Your task to perform on an android device: clear history in the chrome app Image 0: 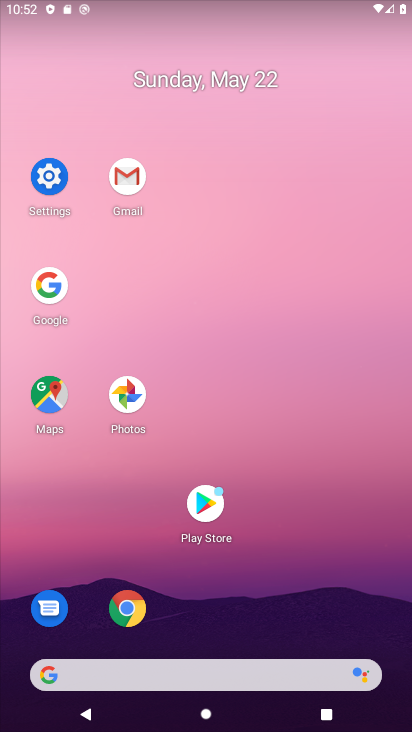
Step 0: click (130, 618)
Your task to perform on an android device: clear history in the chrome app Image 1: 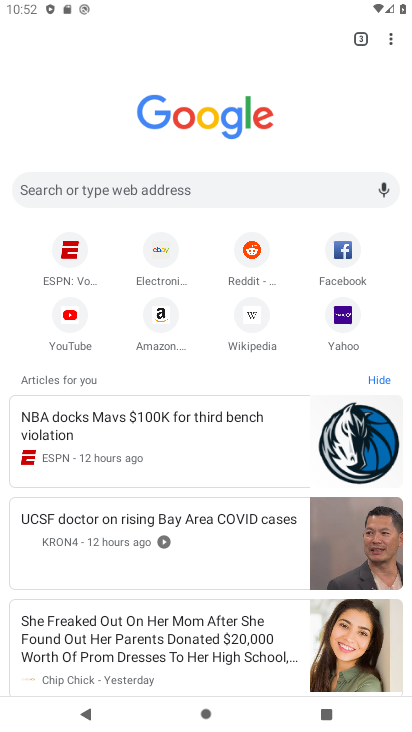
Step 1: click (392, 50)
Your task to perform on an android device: clear history in the chrome app Image 2: 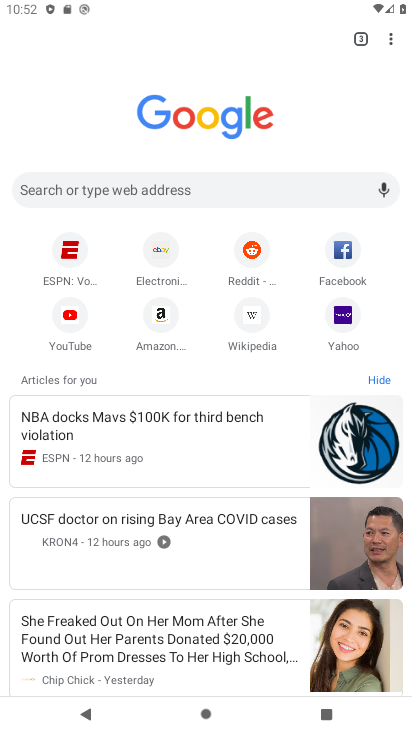
Step 2: click (401, 42)
Your task to perform on an android device: clear history in the chrome app Image 3: 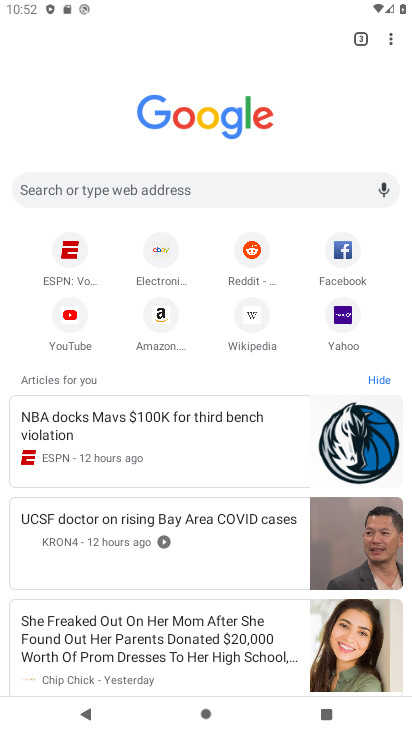
Step 3: click (398, 46)
Your task to perform on an android device: clear history in the chrome app Image 4: 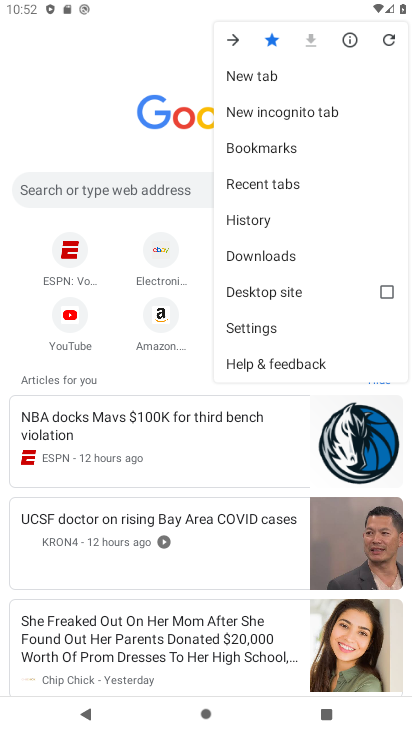
Step 4: click (253, 332)
Your task to perform on an android device: clear history in the chrome app Image 5: 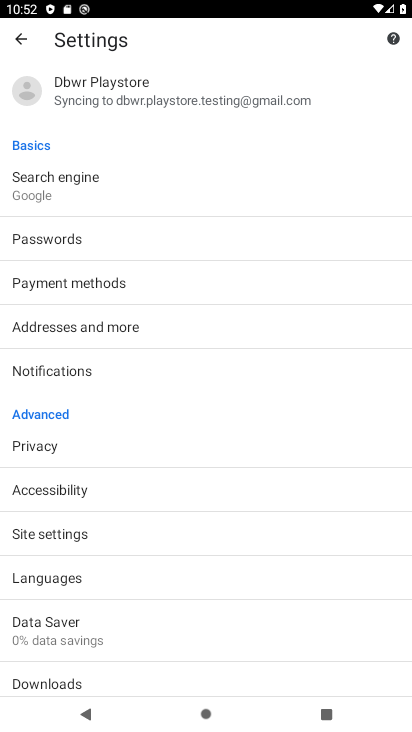
Step 5: drag from (113, 576) to (173, 231)
Your task to perform on an android device: clear history in the chrome app Image 6: 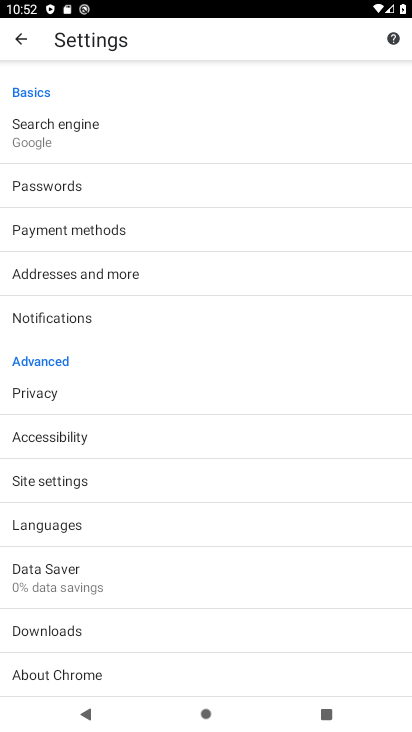
Step 6: click (132, 389)
Your task to perform on an android device: clear history in the chrome app Image 7: 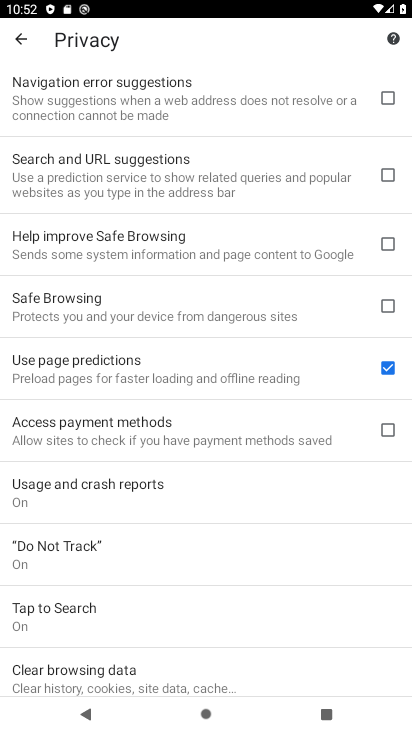
Step 7: drag from (196, 584) to (210, 229)
Your task to perform on an android device: clear history in the chrome app Image 8: 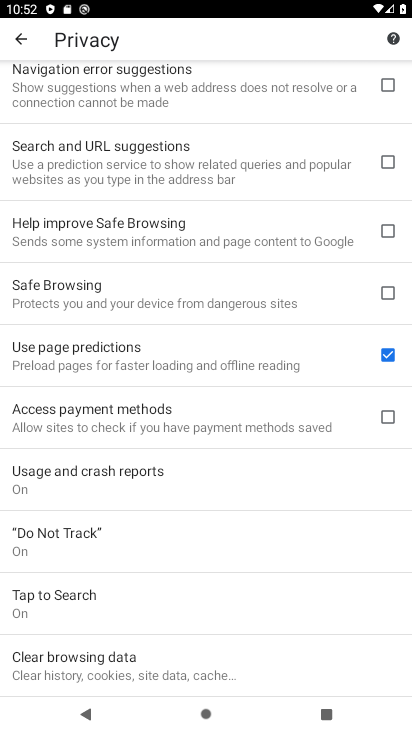
Step 8: click (160, 670)
Your task to perform on an android device: clear history in the chrome app Image 9: 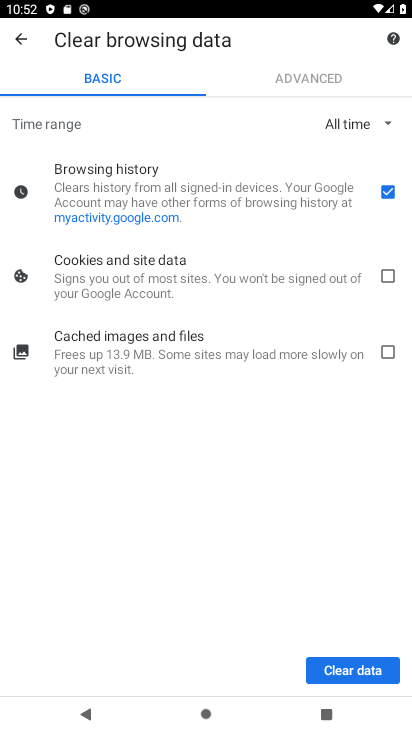
Step 9: click (366, 663)
Your task to perform on an android device: clear history in the chrome app Image 10: 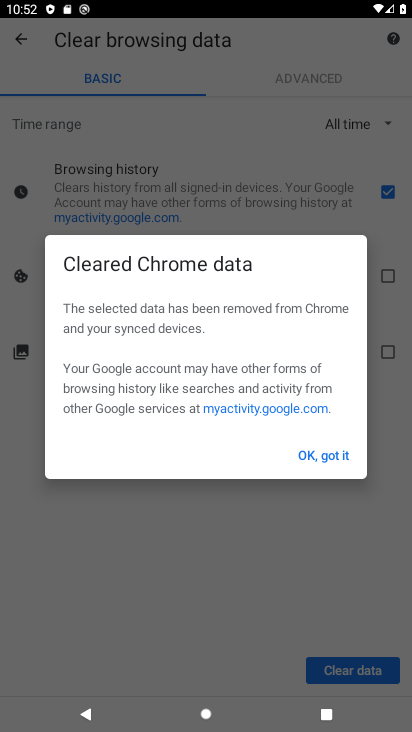
Step 10: click (313, 454)
Your task to perform on an android device: clear history in the chrome app Image 11: 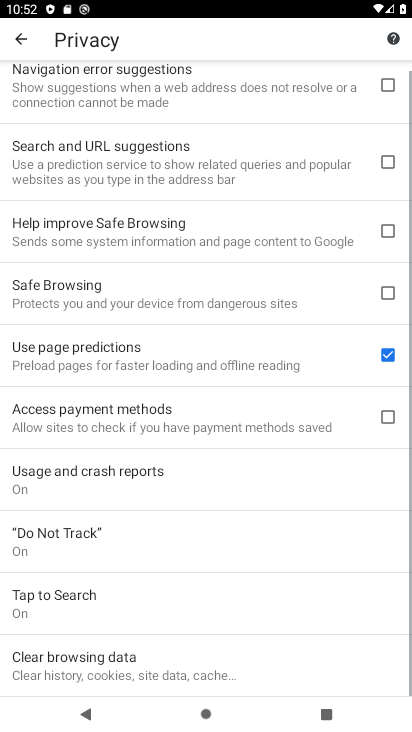
Step 11: task complete